Your task to perform on an android device: turn on improve location accuracy Image 0: 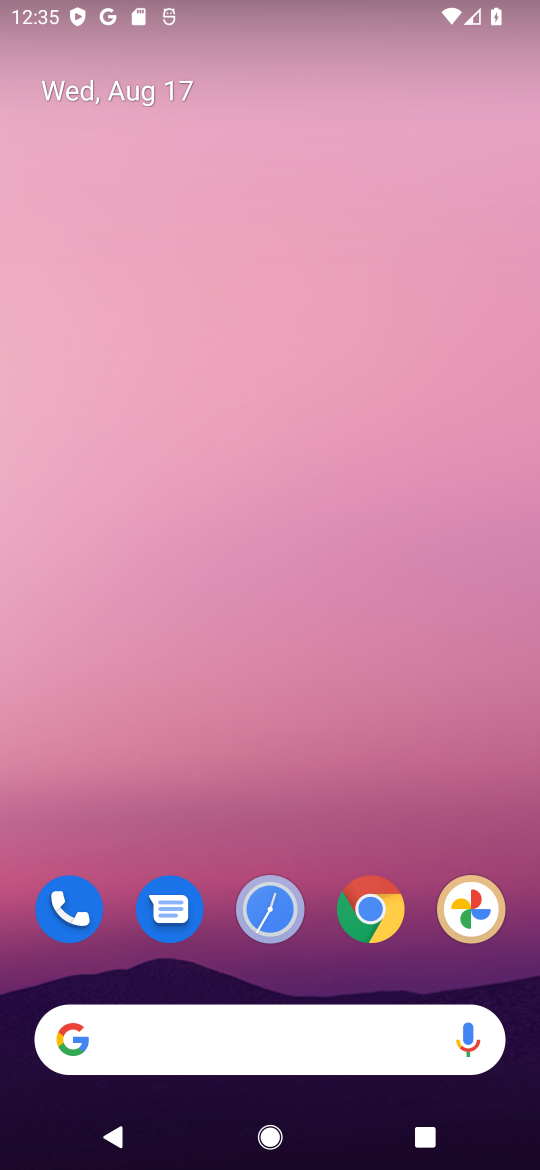
Step 0: drag from (278, 842) to (222, 249)
Your task to perform on an android device: turn on improve location accuracy Image 1: 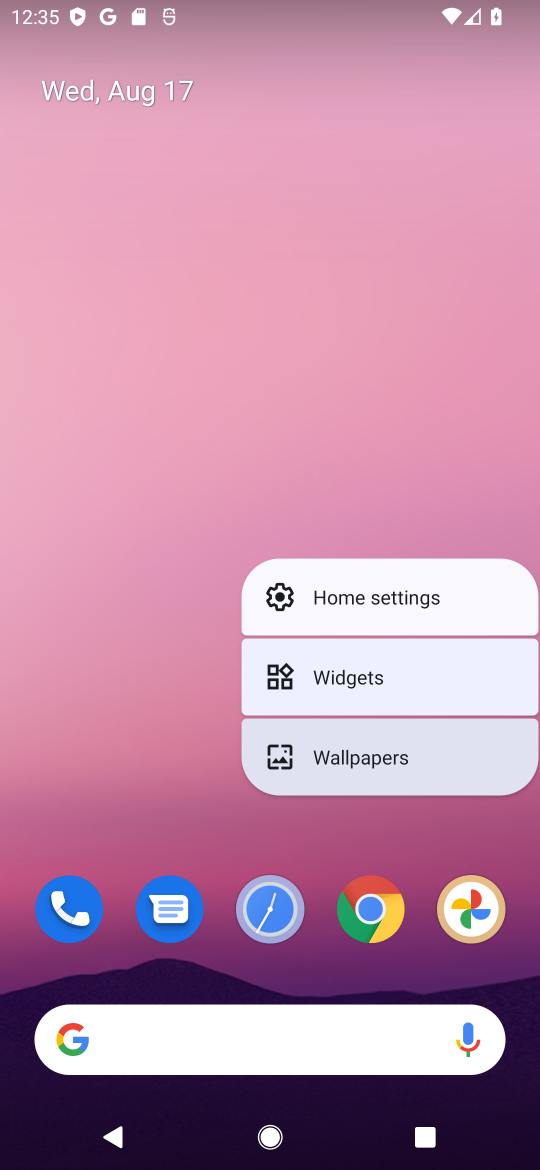
Step 1: click (295, 385)
Your task to perform on an android device: turn on improve location accuracy Image 2: 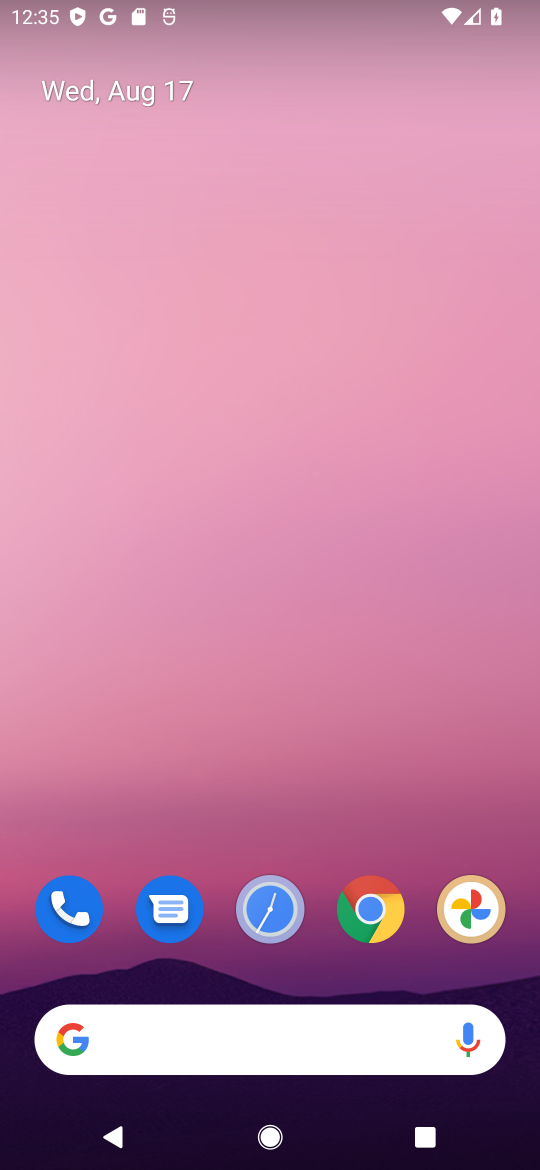
Step 2: drag from (326, 807) to (332, 2)
Your task to perform on an android device: turn on improve location accuracy Image 3: 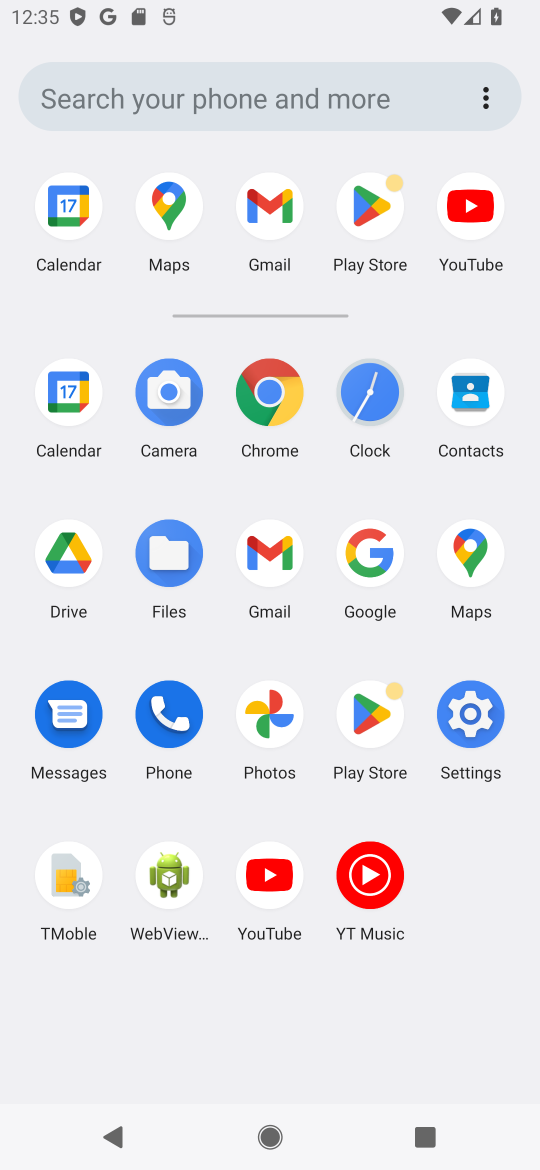
Step 3: click (471, 715)
Your task to perform on an android device: turn on improve location accuracy Image 4: 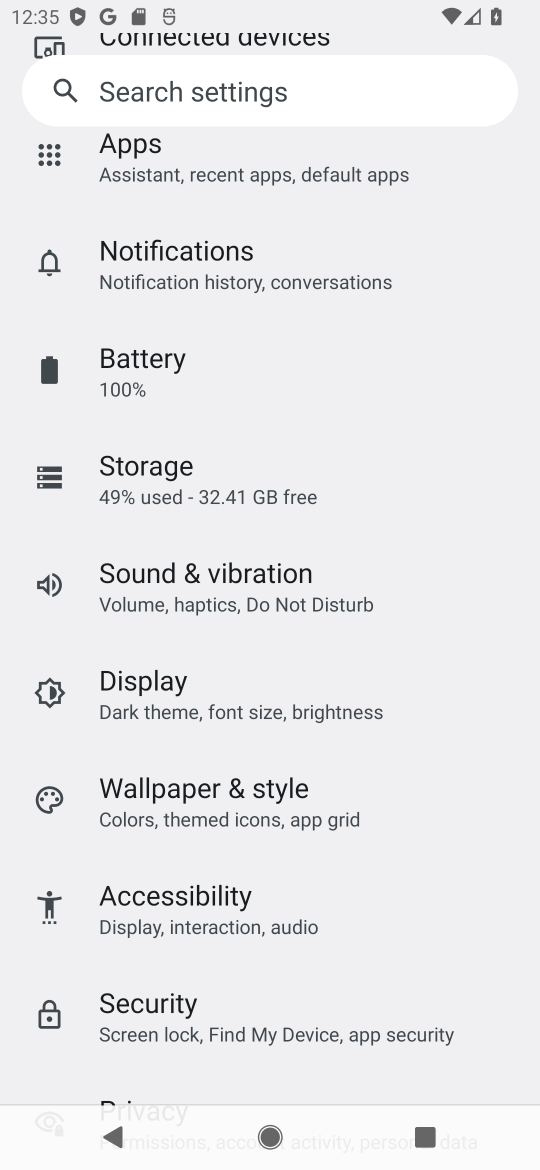
Step 4: drag from (274, 403) to (310, 758)
Your task to perform on an android device: turn on improve location accuracy Image 5: 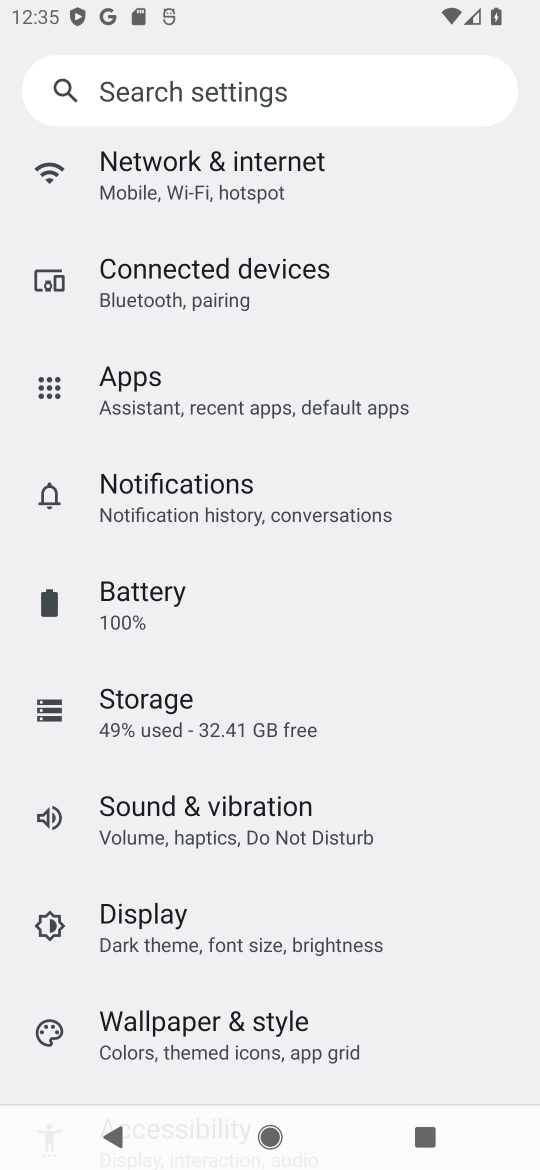
Step 5: drag from (332, 326) to (339, 671)
Your task to perform on an android device: turn on improve location accuracy Image 6: 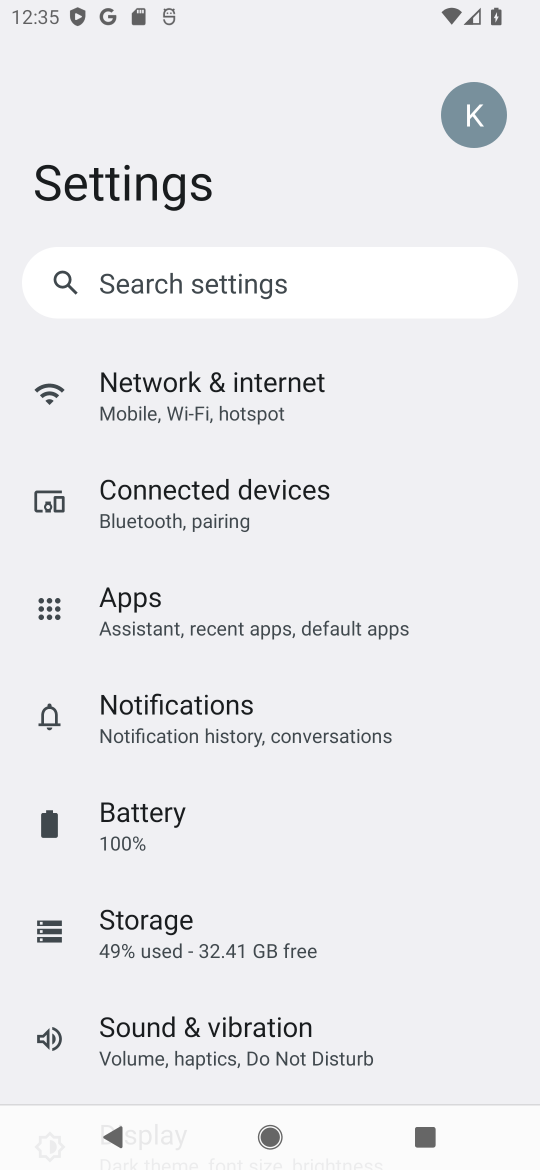
Step 6: drag from (314, 964) to (293, 427)
Your task to perform on an android device: turn on improve location accuracy Image 7: 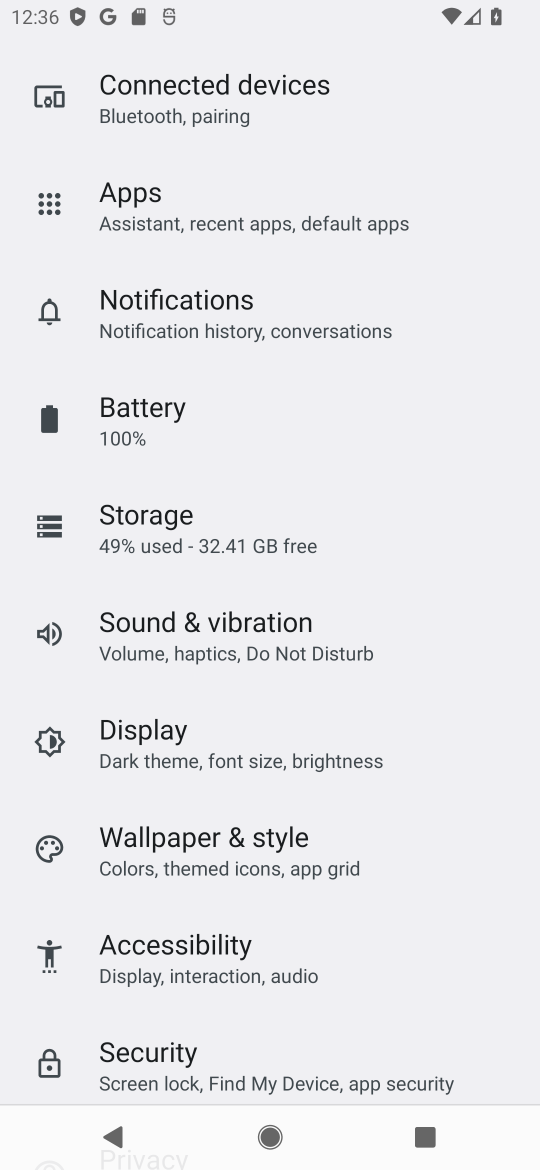
Step 7: drag from (314, 982) to (265, 514)
Your task to perform on an android device: turn on improve location accuracy Image 8: 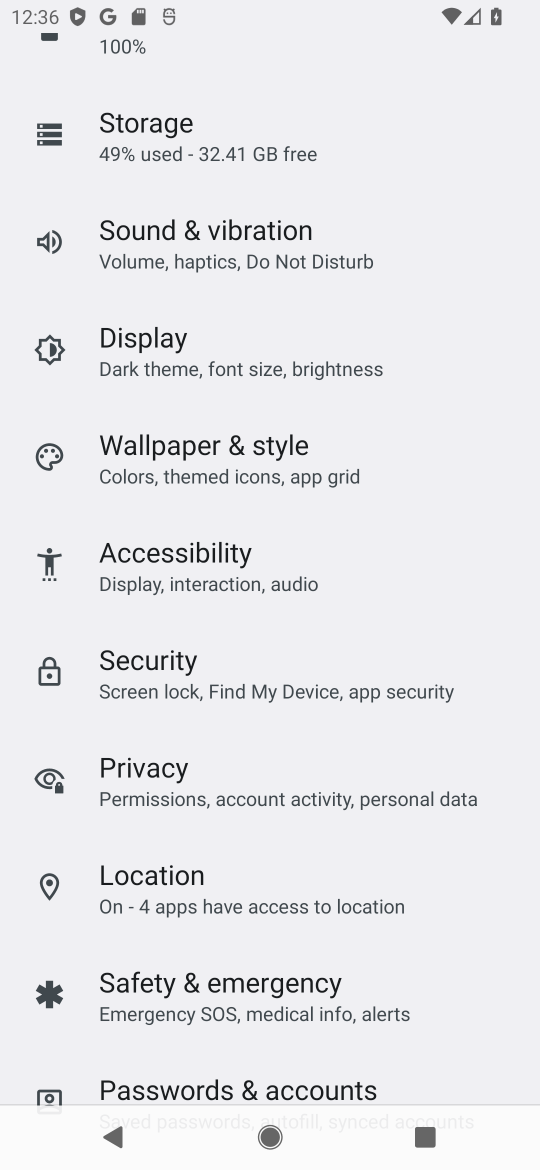
Step 8: click (135, 871)
Your task to perform on an android device: turn on improve location accuracy Image 9: 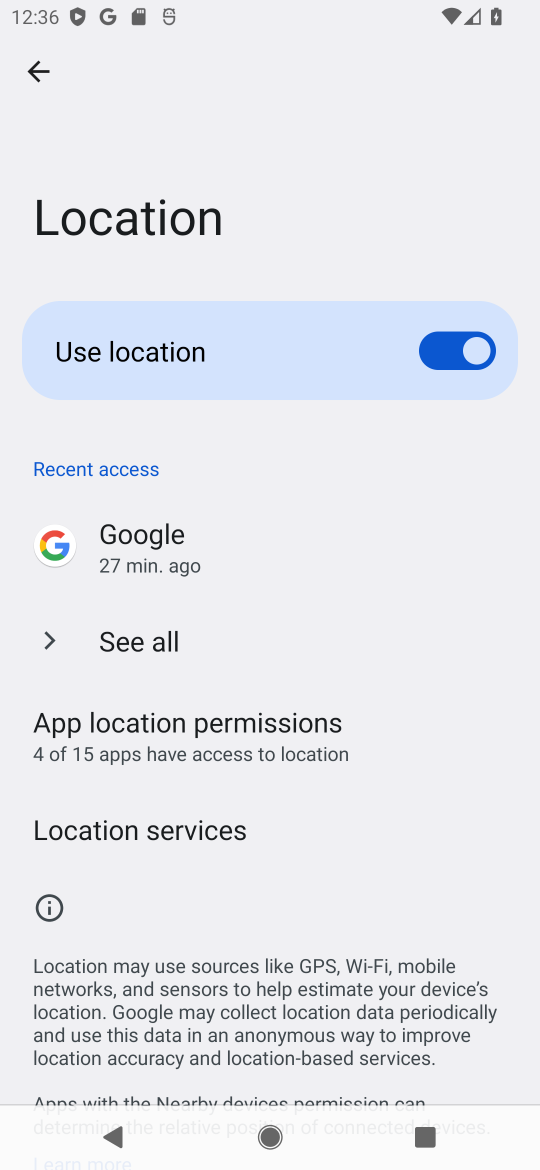
Step 9: click (127, 832)
Your task to perform on an android device: turn on improve location accuracy Image 10: 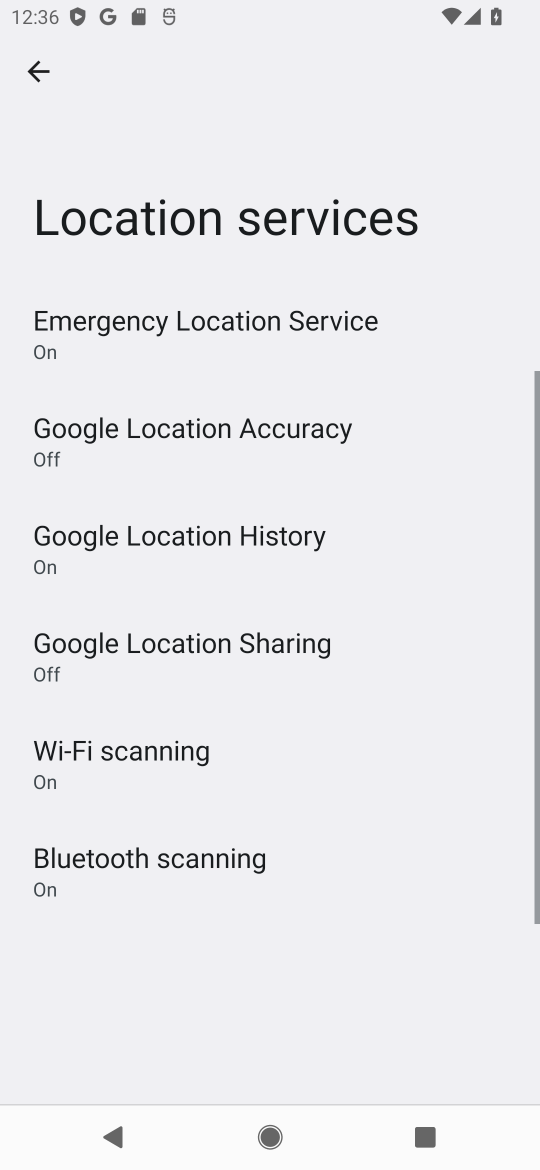
Step 10: click (209, 427)
Your task to perform on an android device: turn on improve location accuracy Image 11: 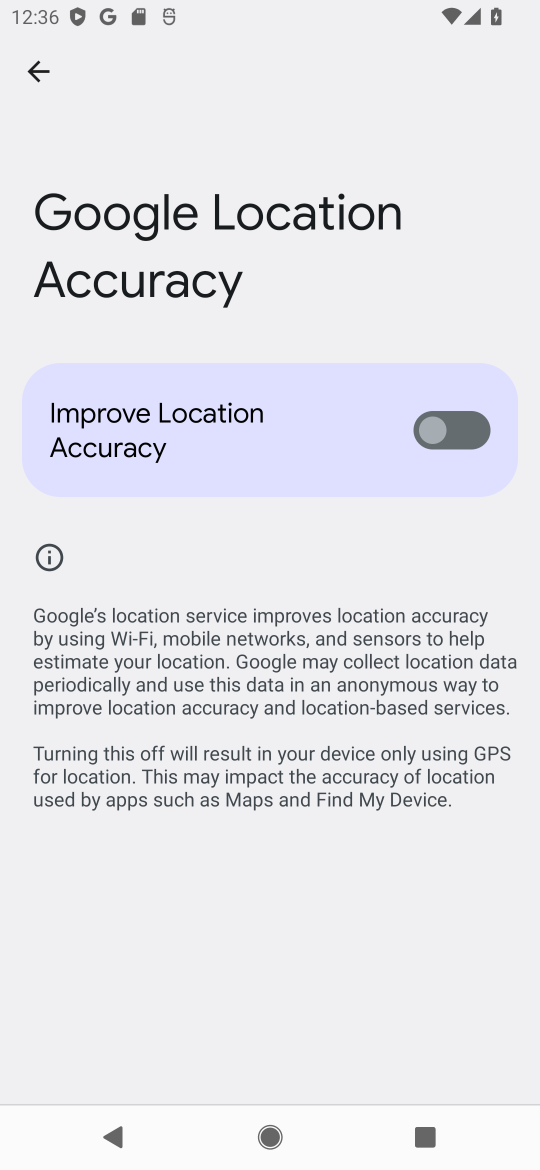
Step 11: click (430, 422)
Your task to perform on an android device: turn on improve location accuracy Image 12: 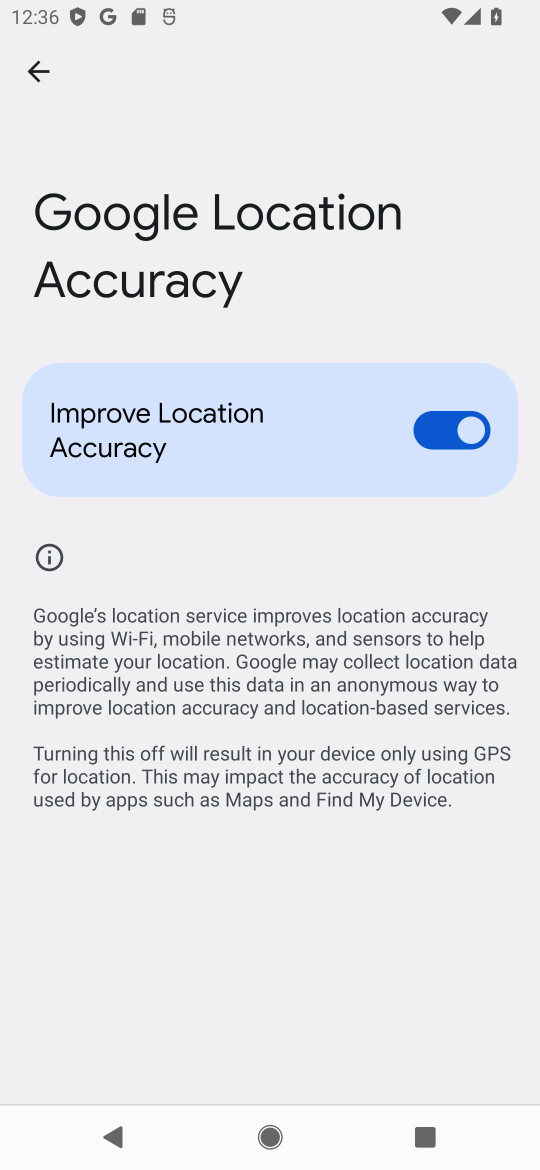
Step 12: task complete